Your task to perform on an android device: Go to Wikipedia Image 0: 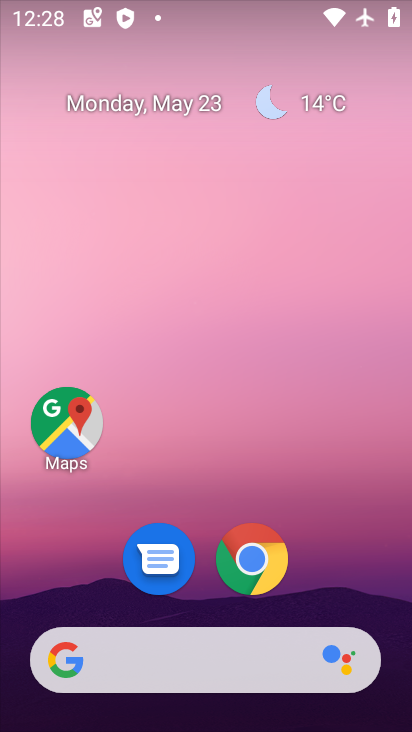
Step 0: click (255, 557)
Your task to perform on an android device: Go to Wikipedia Image 1: 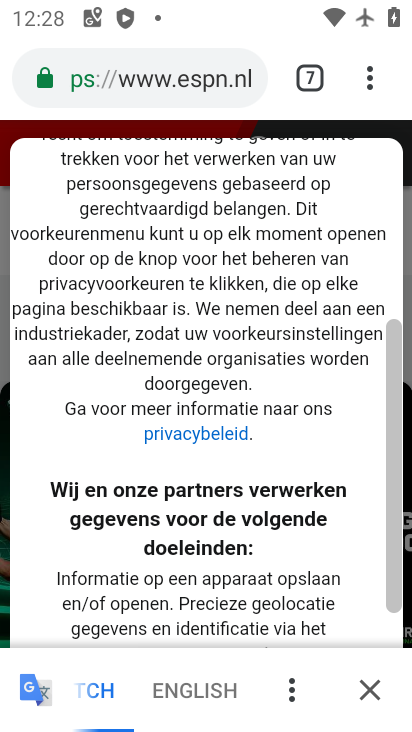
Step 1: click (153, 80)
Your task to perform on an android device: Go to Wikipedia Image 2: 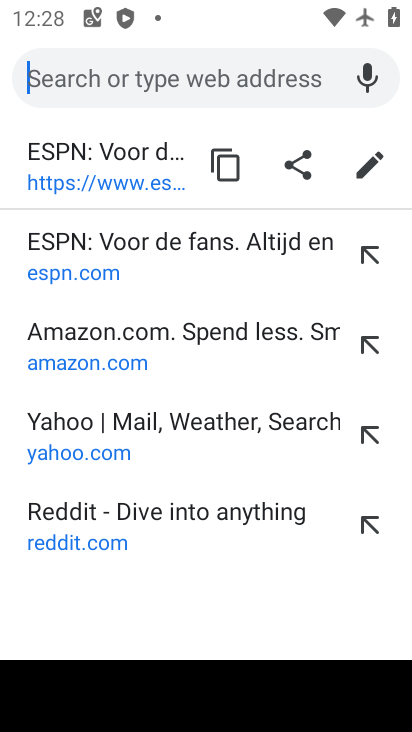
Step 2: type "wikipedia"
Your task to perform on an android device: Go to Wikipedia Image 3: 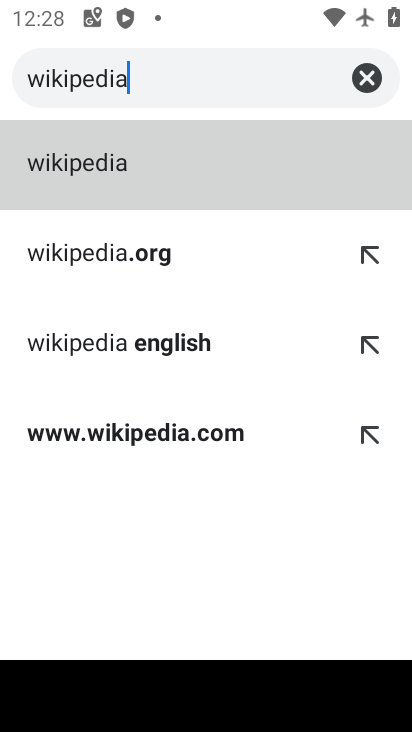
Step 3: click (86, 262)
Your task to perform on an android device: Go to Wikipedia Image 4: 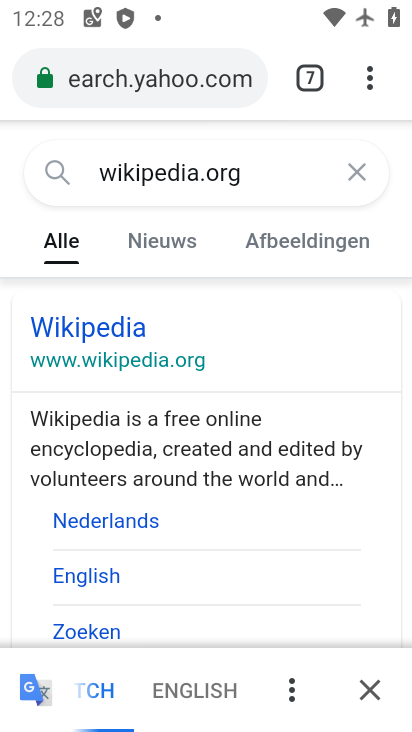
Step 4: click (93, 360)
Your task to perform on an android device: Go to Wikipedia Image 5: 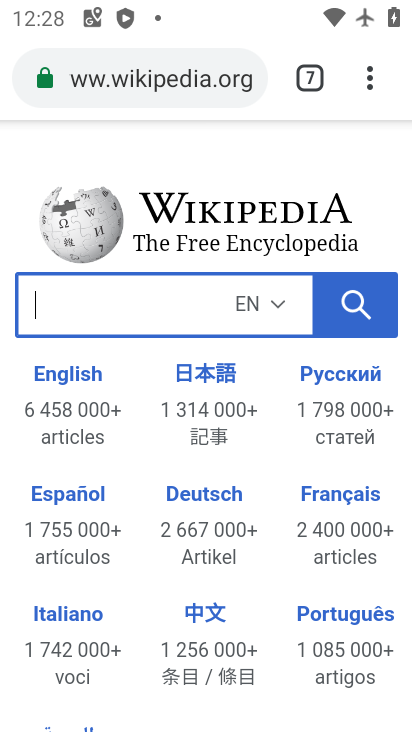
Step 5: task complete